Your task to perform on an android device: change timer sound Image 0: 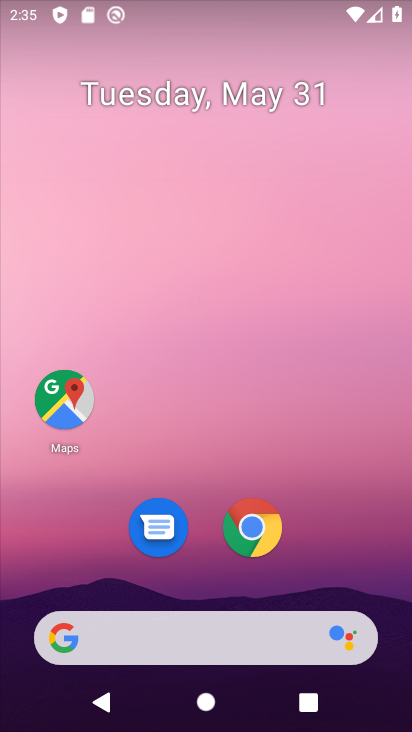
Step 0: drag from (247, 477) to (346, 60)
Your task to perform on an android device: change timer sound Image 1: 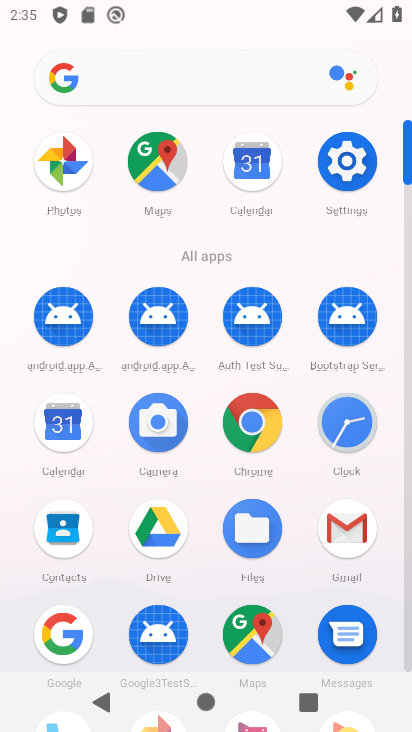
Step 1: click (360, 432)
Your task to perform on an android device: change timer sound Image 2: 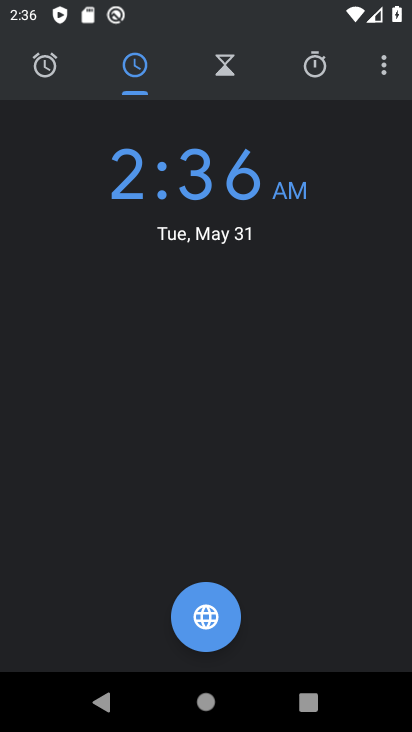
Step 2: click (376, 63)
Your task to perform on an android device: change timer sound Image 3: 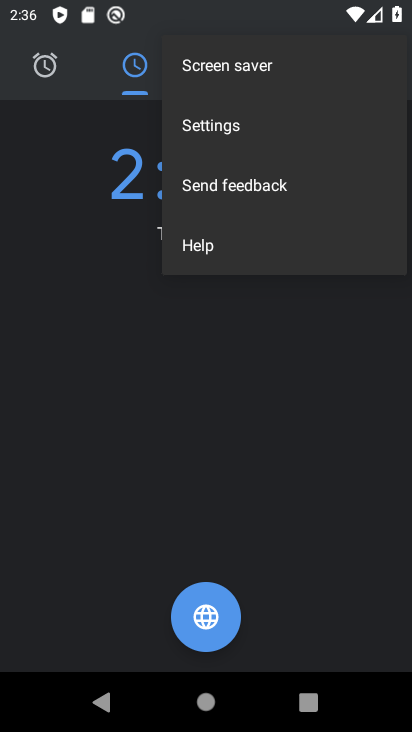
Step 3: click (276, 119)
Your task to perform on an android device: change timer sound Image 4: 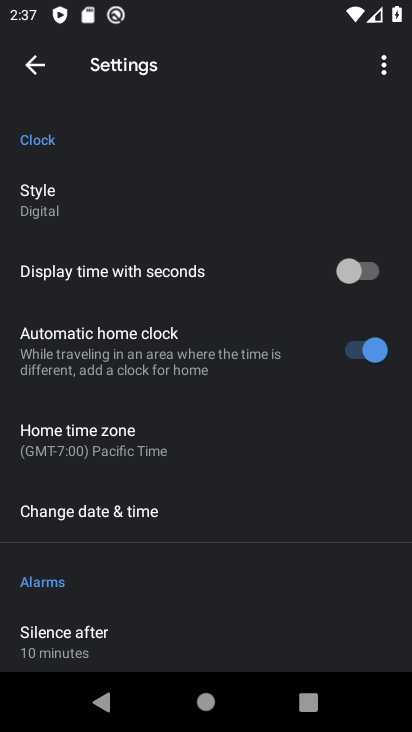
Step 4: drag from (186, 633) to (171, 220)
Your task to perform on an android device: change timer sound Image 5: 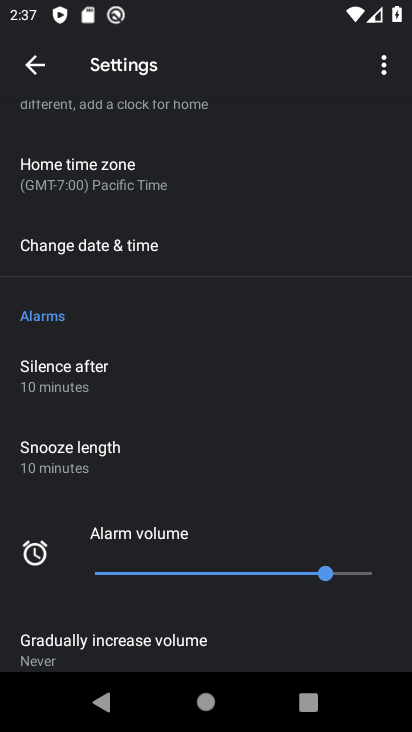
Step 5: drag from (122, 600) to (172, 121)
Your task to perform on an android device: change timer sound Image 6: 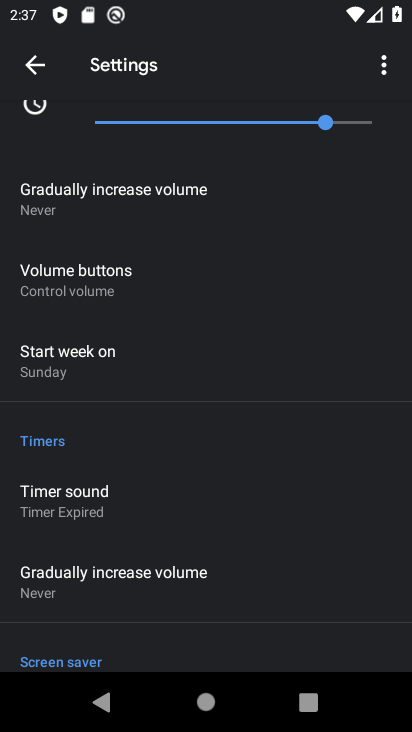
Step 6: click (70, 512)
Your task to perform on an android device: change timer sound Image 7: 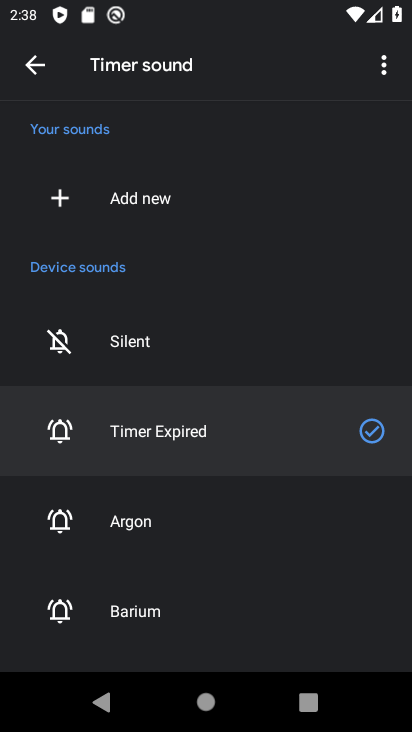
Step 7: click (146, 620)
Your task to perform on an android device: change timer sound Image 8: 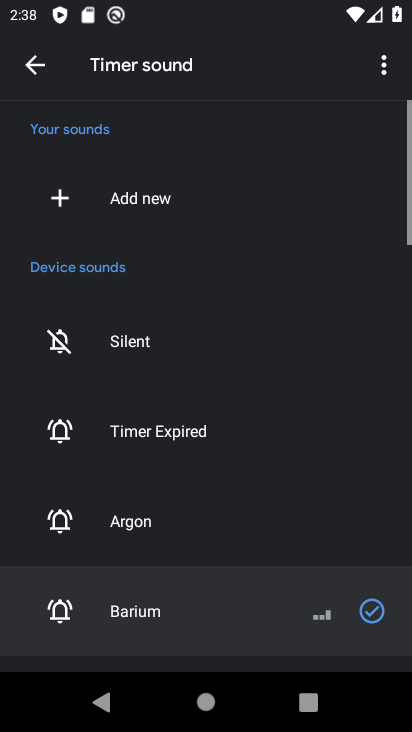
Step 8: task complete